Your task to perform on an android device: turn off data saver in the chrome app Image 0: 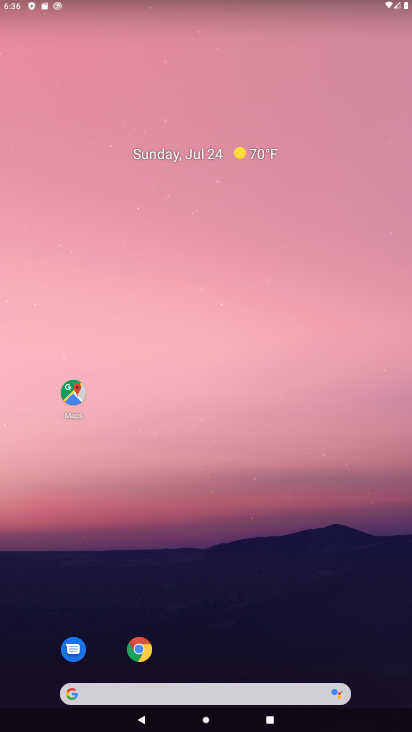
Step 0: click (141, 651)
Your task to perform on an android device: turn off data saver in the chrome app Image 1: 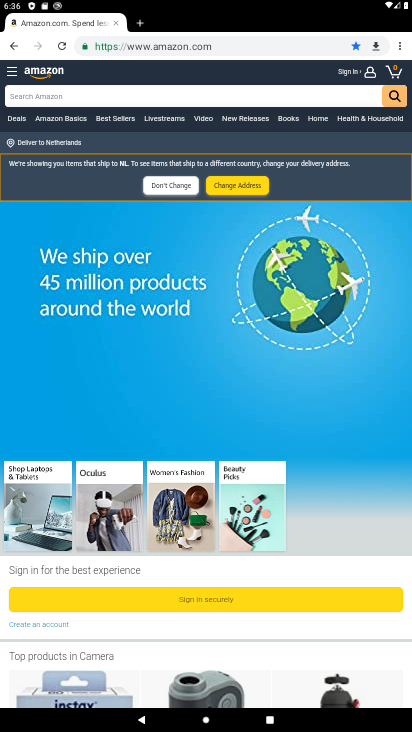
Step 1: click (396, 48)
Your task to perform on an android device: turn off data saver in the chrome app Image 2: 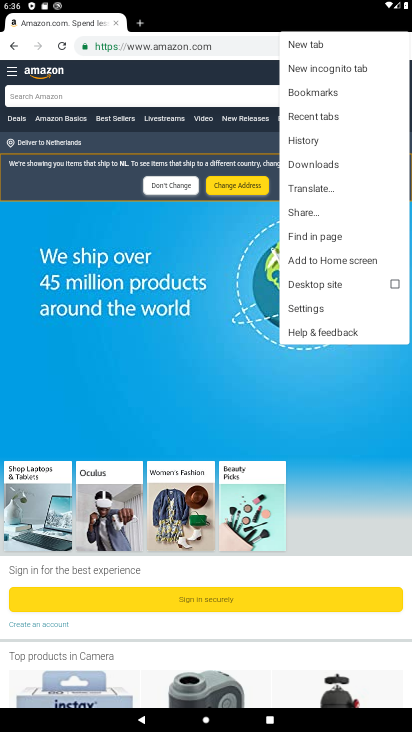
Step 2: click (310, 311)
Your task to perform on an android device: turn off data saver in the chrome app Image 3: 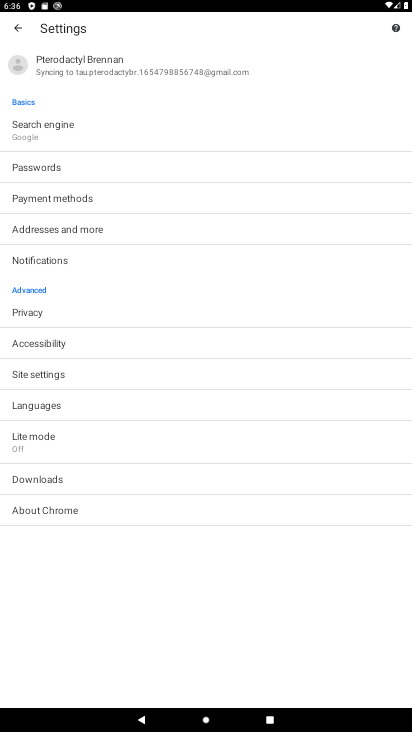
Step 3: click (35, 442)
Your task to perform on an android device: turn off data saver in the chrome app Image 4: 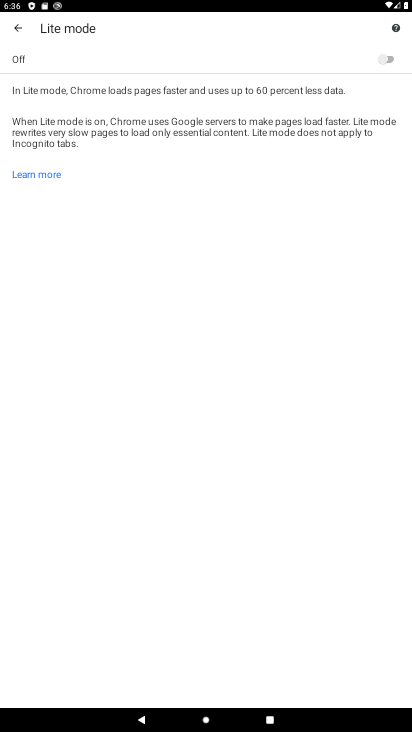
Step 4: task complete